Your task to perform on an android device: read, delete, or share a saved page in the chrome app Image 0: 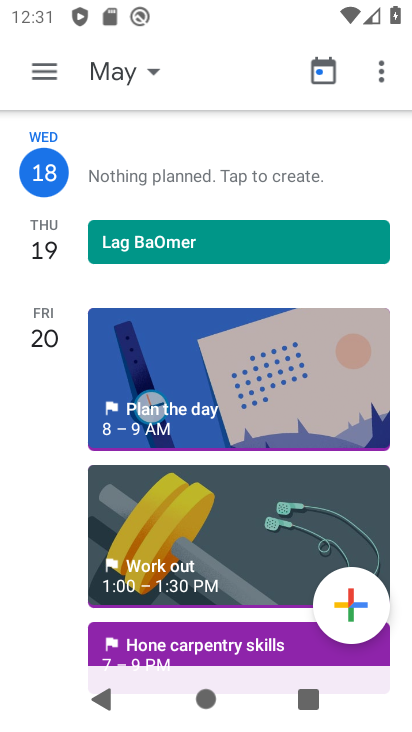
Step 0: press home button
Your task to perform on an android device: read, delete, or share a saved page in the chrome app Image 1: 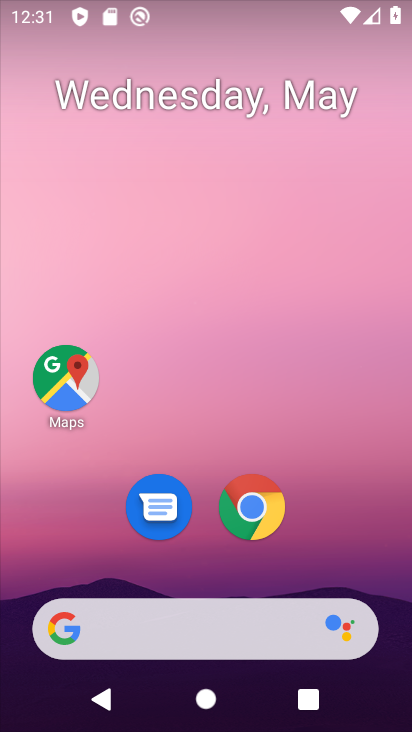
Step 1: click (252, 497)
Your task to perform on an android device: read, delete, or share a saved page in the chrome app Image 2: 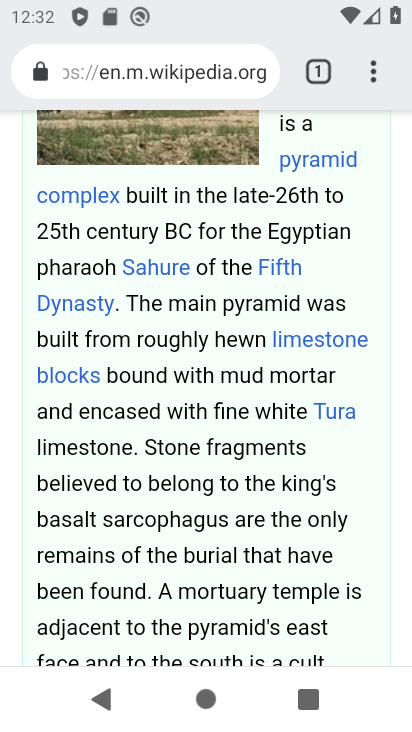
Step 2: click (375, 72)
Your task to perform on an android device: read, delete, or share a saved page in the chrome app Image 3: 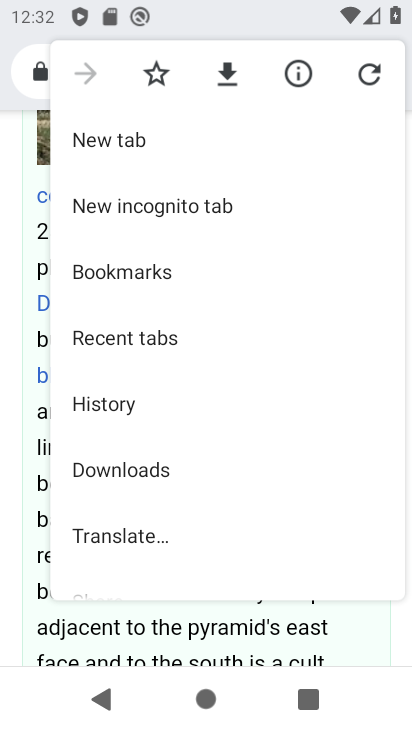
Step 3: click (123, 465)
Your task to perform on an android device: read, delete, or share a saved page in the chrome app Image 4: 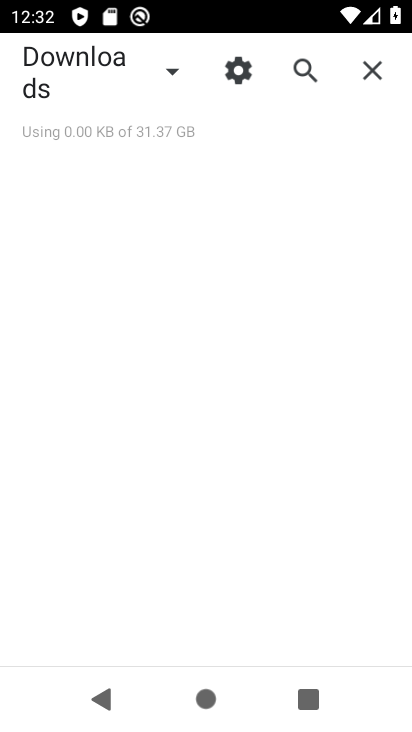
Step 4: click (166, 74)
Your task to perform on an android device: read, delete, or share a saved page in the chrome app Image 5: 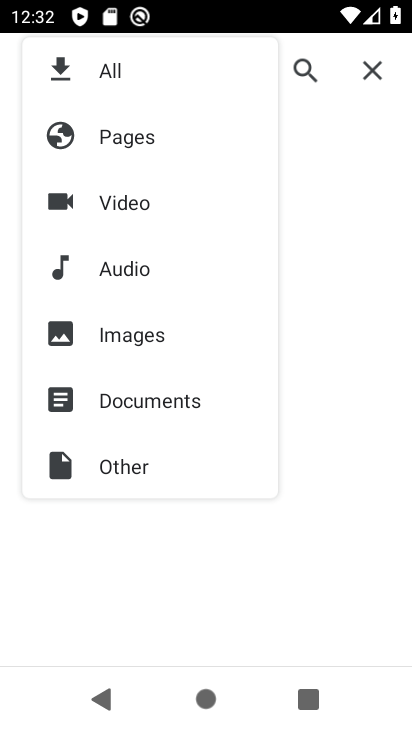
Step 5: click (128, 128)
Your task to perform on an android device: read, delete, or share a saved page in the chrome app Image 6: 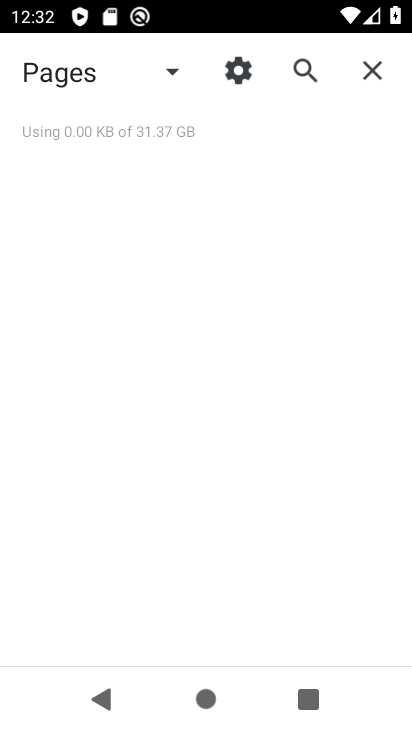
Step 6: task complete